Your task to perform on an android device: Go to Reddit.com Image 0: 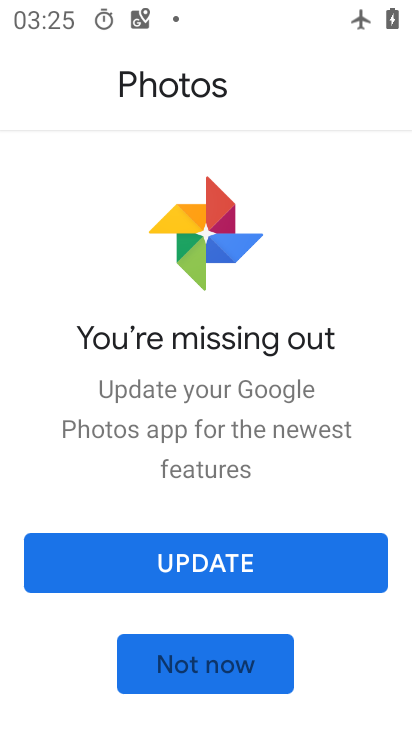
Step 0: press home button
Your task to perform on an android device: Go to Reddit.com Image 1: 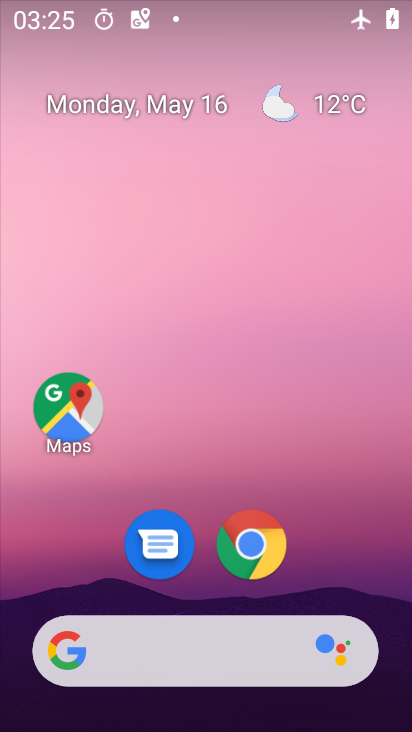
Step 1: click (247, 544)
Your task to perform on an android device: Go to Reddit.com Image 2: 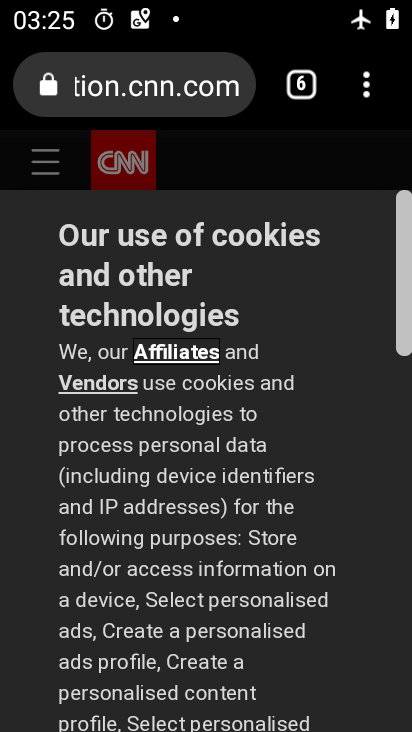
Step 2: click (368, 95)
Your task to perform on an android device: Go to Reddit.com Image 3: 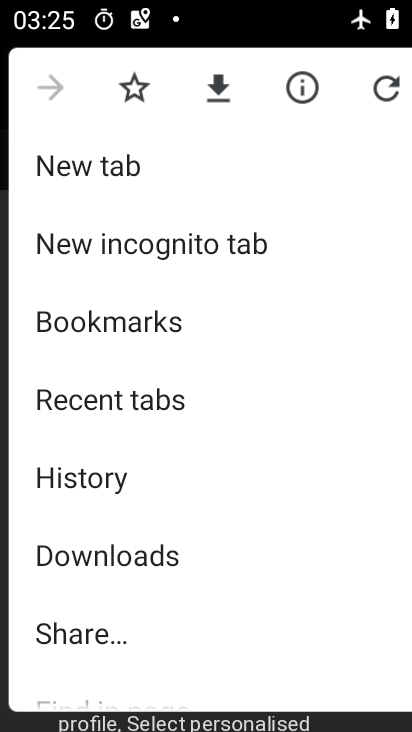
Step 3: click (104, 162)
Your task to perform on an android device: Go to Reddit.com Image 4: 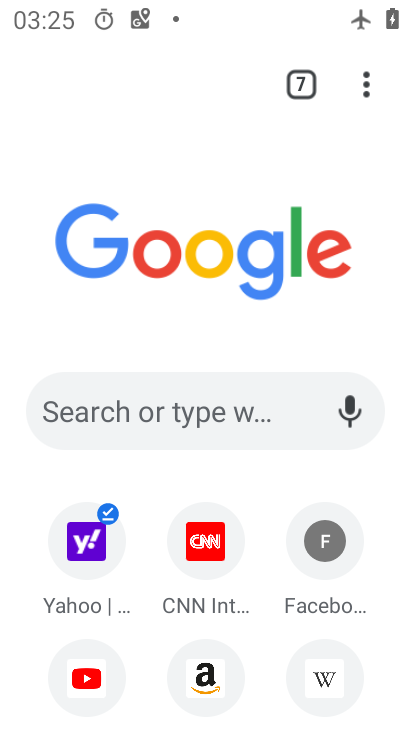
Step 4: click (130, 418)
Your task to perform on an android device: Go to Reddit.com Image 5: 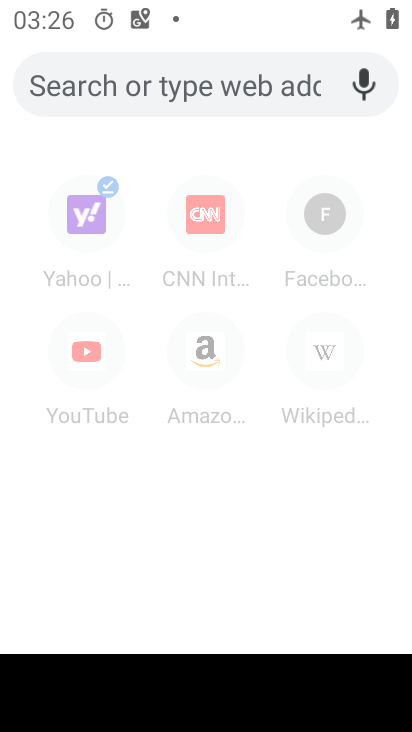
Step 5: type "Reddit.com"
Your task to perform on an android device: Go to Reddit.com Image 6: 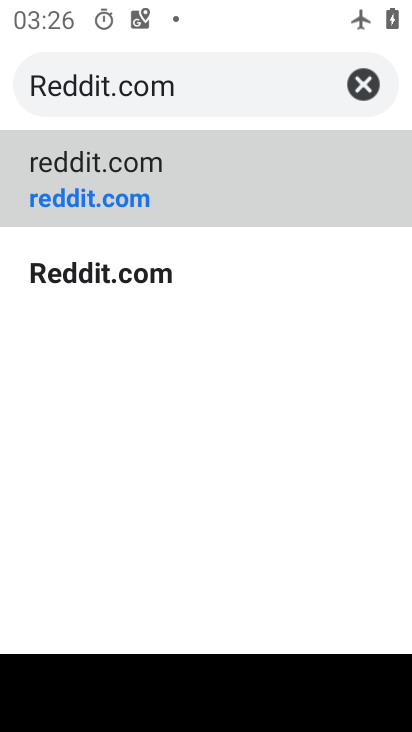
Step 6: click (91, 172)
Your task to perform on an android device: Go to Reddit.com Image 7: 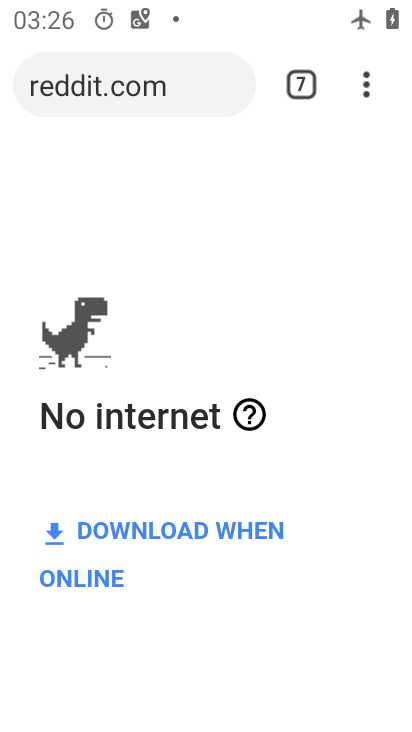
Step 7: task complete